Your task to perform on an android device: visit the assistant section in the google photos Image 0: 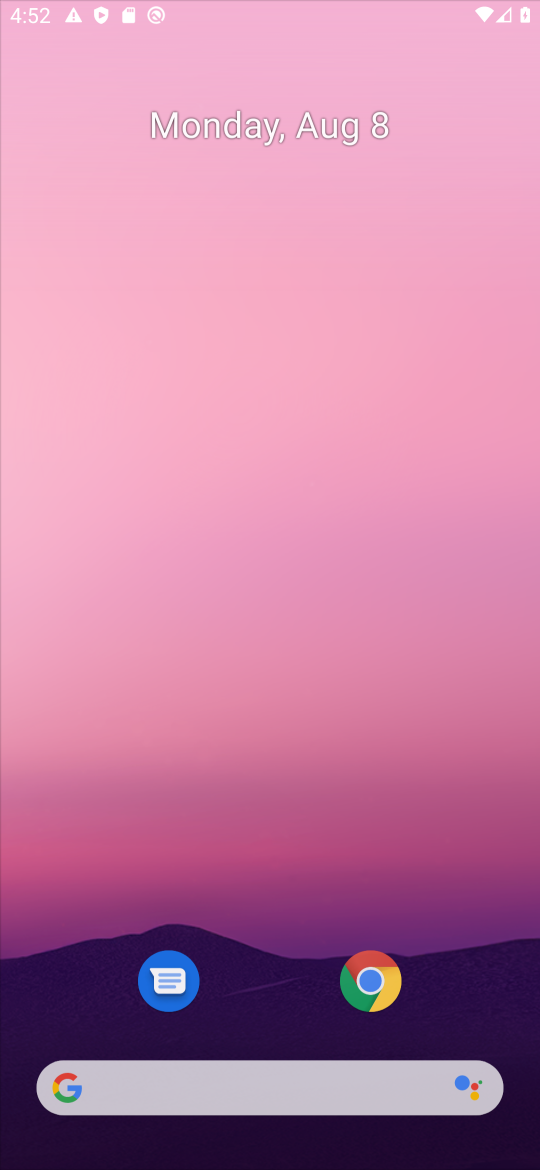
Step 0: drag from (320, 760) to (215, 66)
Your task to perform on an android device: visit the assistant section in the google photos Image 1: 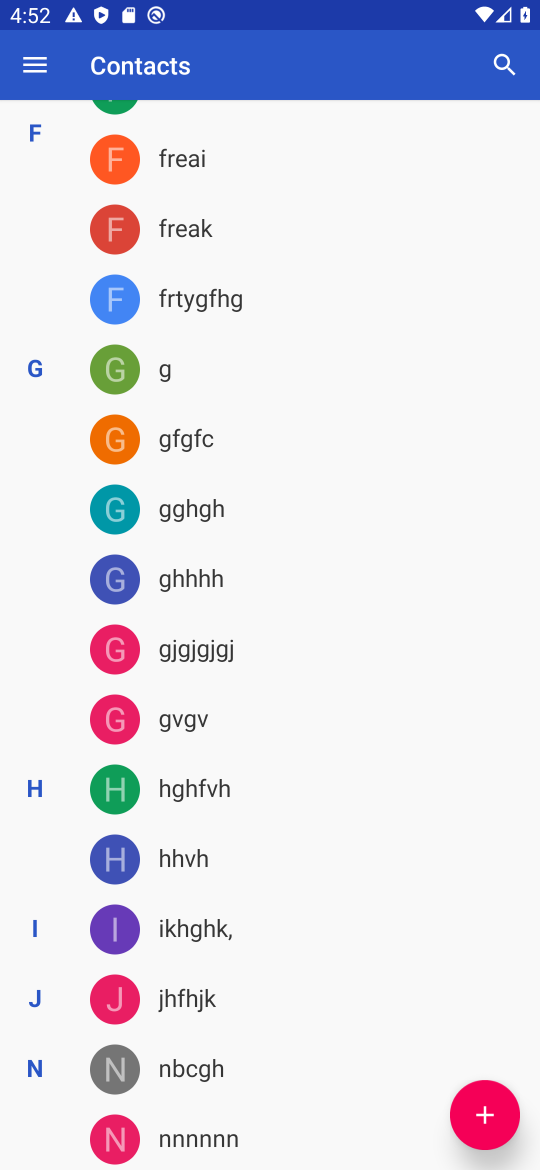
Step 1: press home button
Your task to perform on an android device: visit the assistant section in the google photos Image 2: 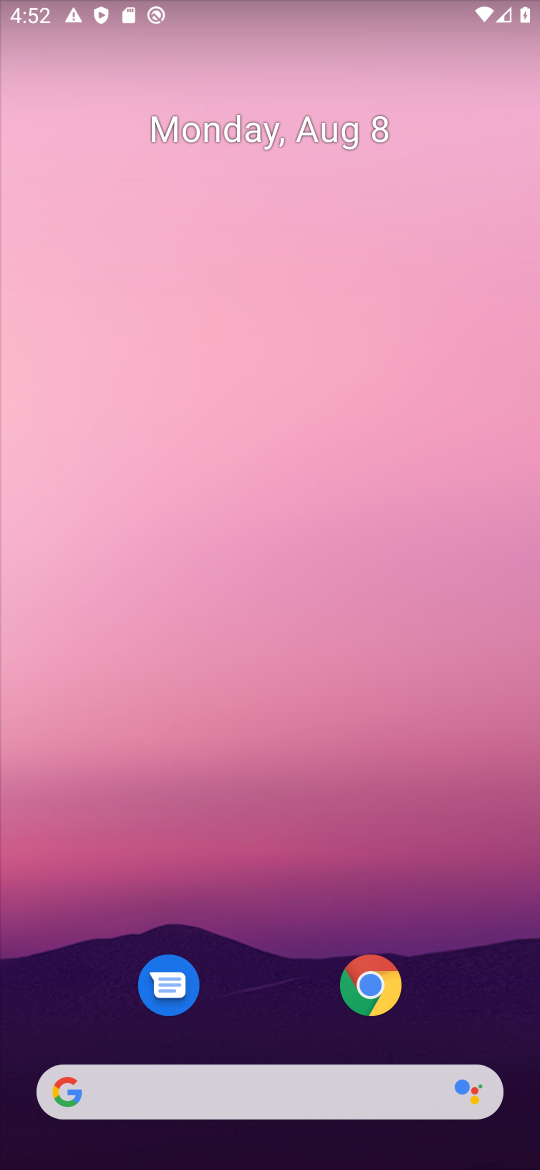
Step 2: drag from (242, 433) to (230, 18)
Your task to perform on an android device: visit the assistant section in the google photos Image 3: 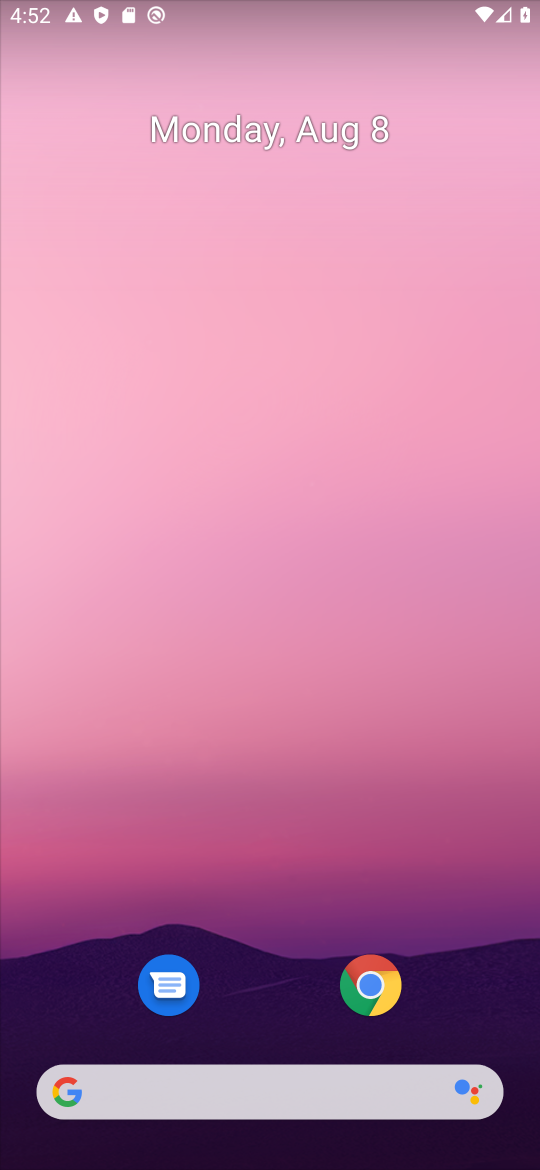
Step 3: drag from (270, 833) to (225, 154)
Your task to perform on an android device: visit the assistant section in the google photos Image 4: 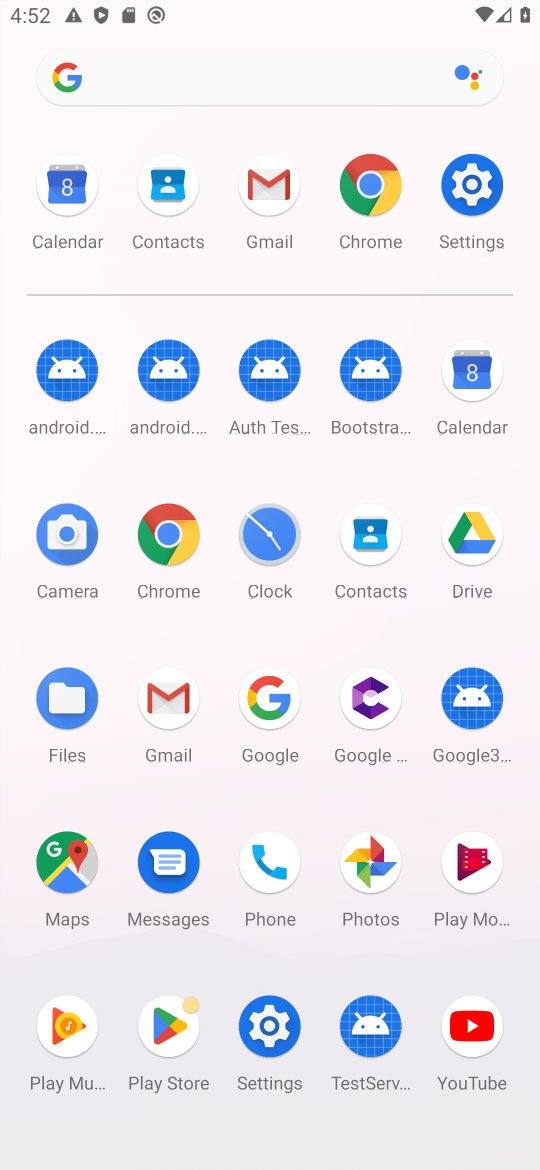
Step 4: click (393, 879)
Your task to perform on an android device: visit the assistant section in the google photos Image 5: 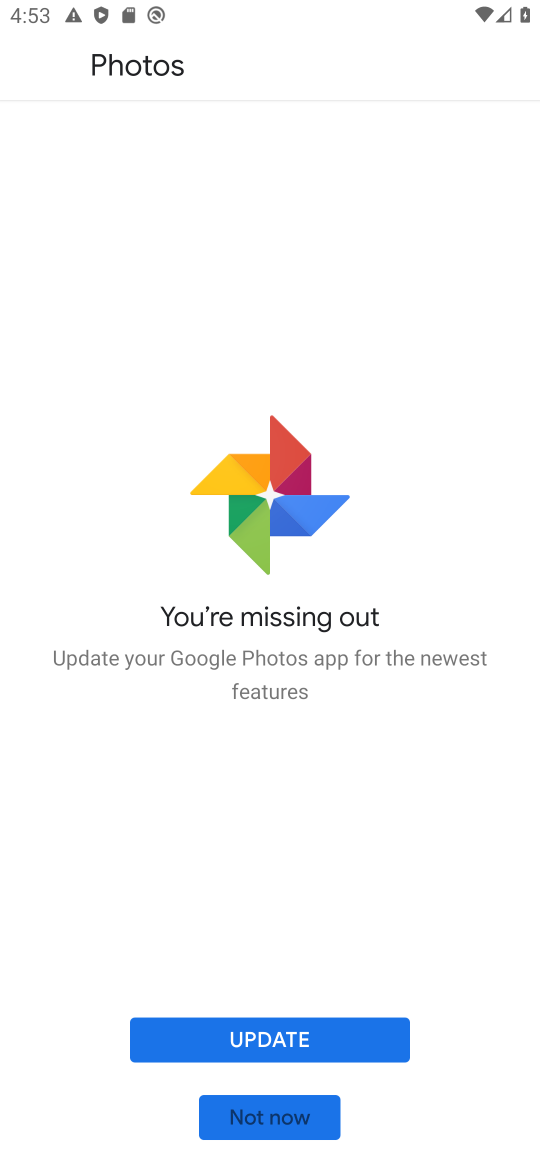
Step 5: click (291, 1129)
Your task to perform on an android device: visit the assistant section in the google photos Image 6: 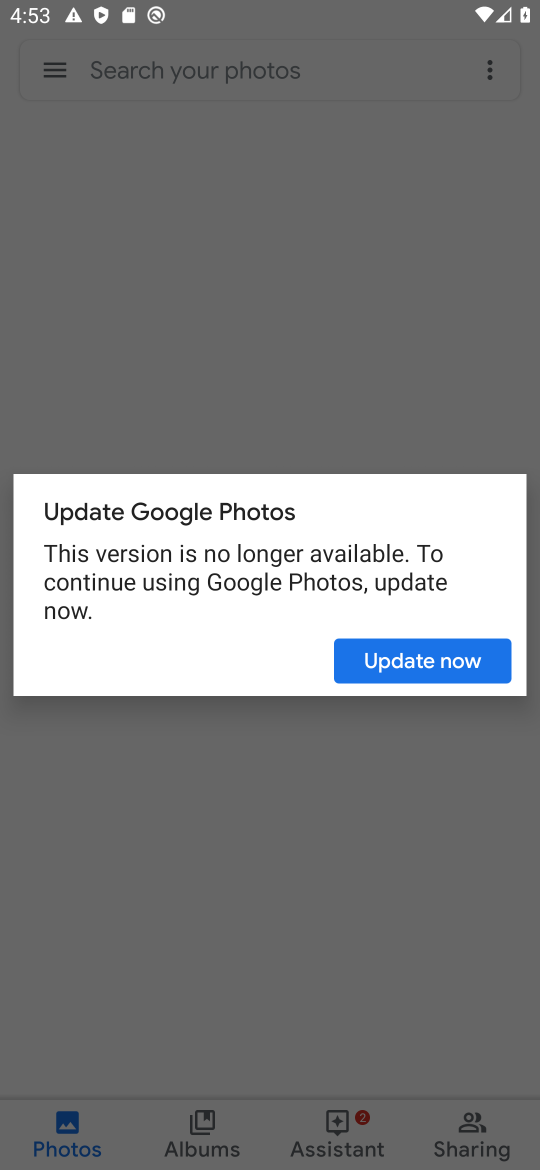
Step 6: click (417, 861)
Your task to perform on an android device: visit the assistant section in the google photos Image 7: 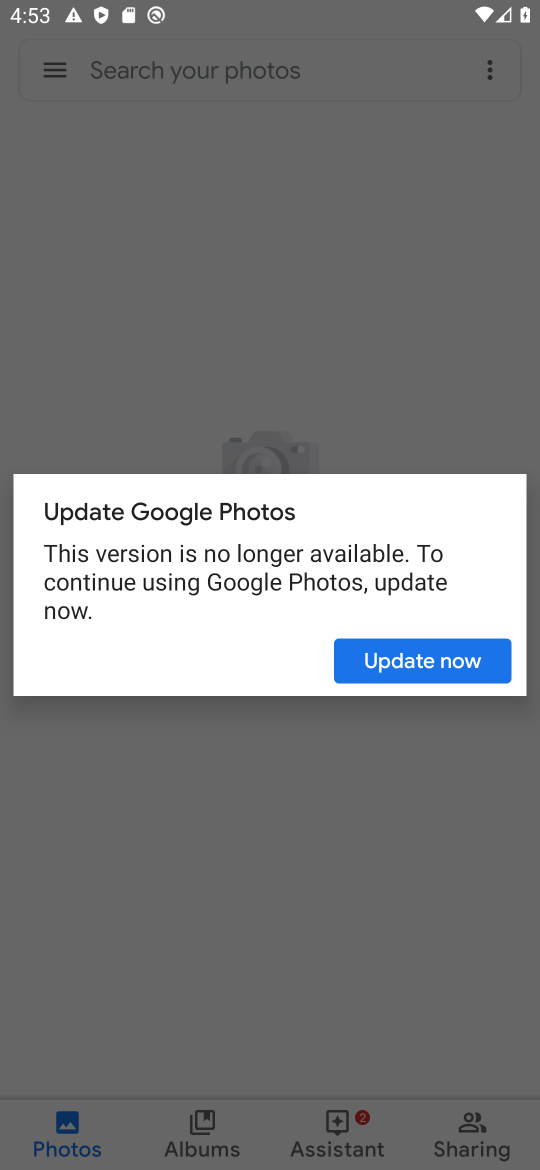
Step 7: task complete